Your task to perform on an android device: Search for "sony triple a" on walmart, select the first entry, and add it to the cart. Image 0: 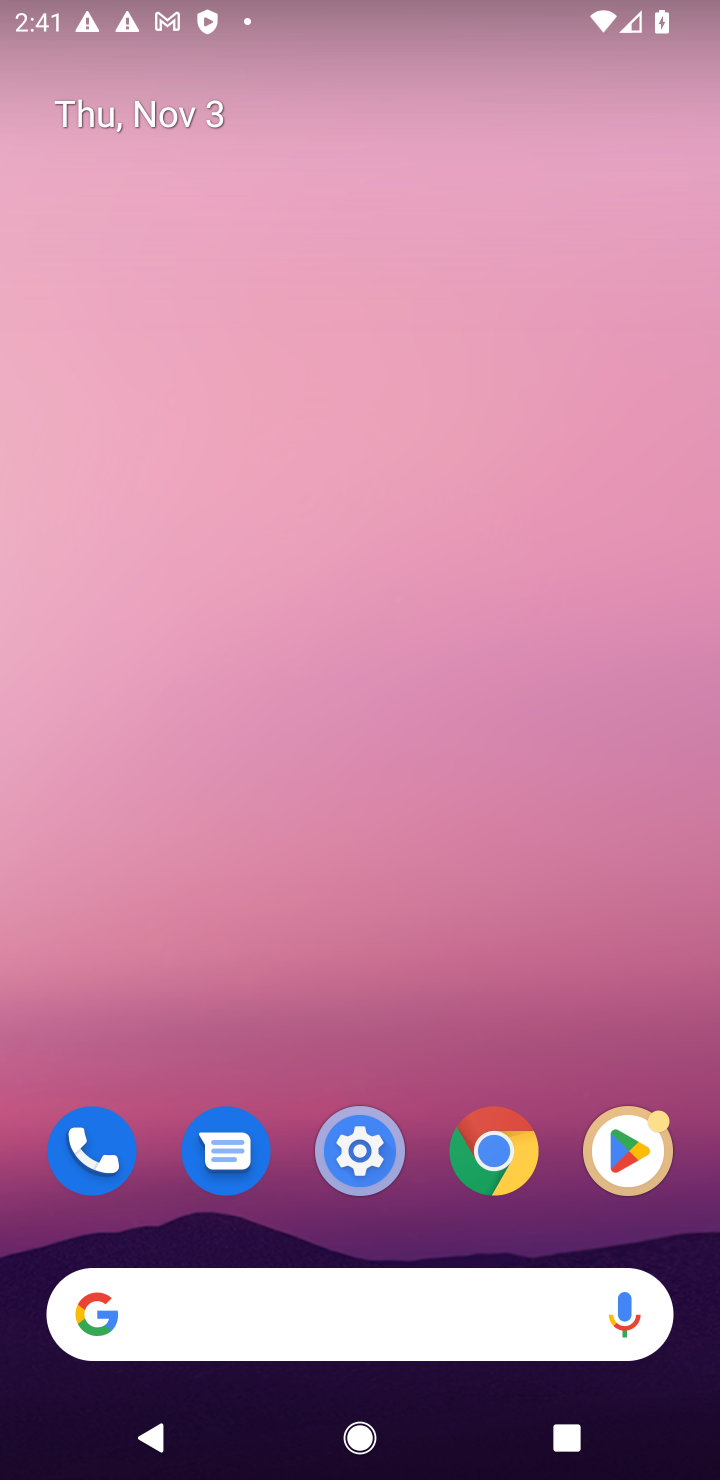
Step 0: click (318, 1335)
Your task to perform on an android device: Search for "sony triple a" on walmart, select the first entry, and add it to the cart. Image 1: 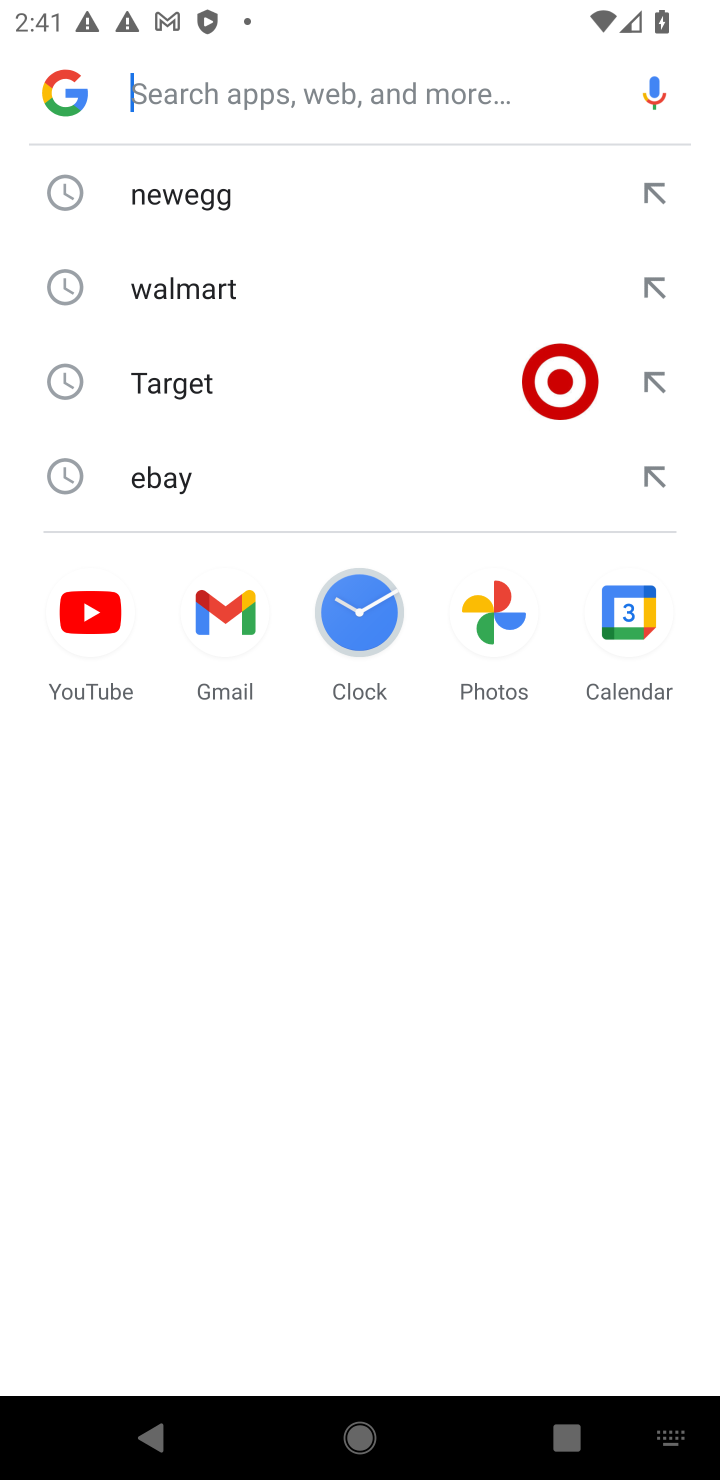
Step 1: type "walmart"
Your task to perform on an android device: Search for "sony triple a" on walmart, select the first entry, and add it to the cart. Image 2: 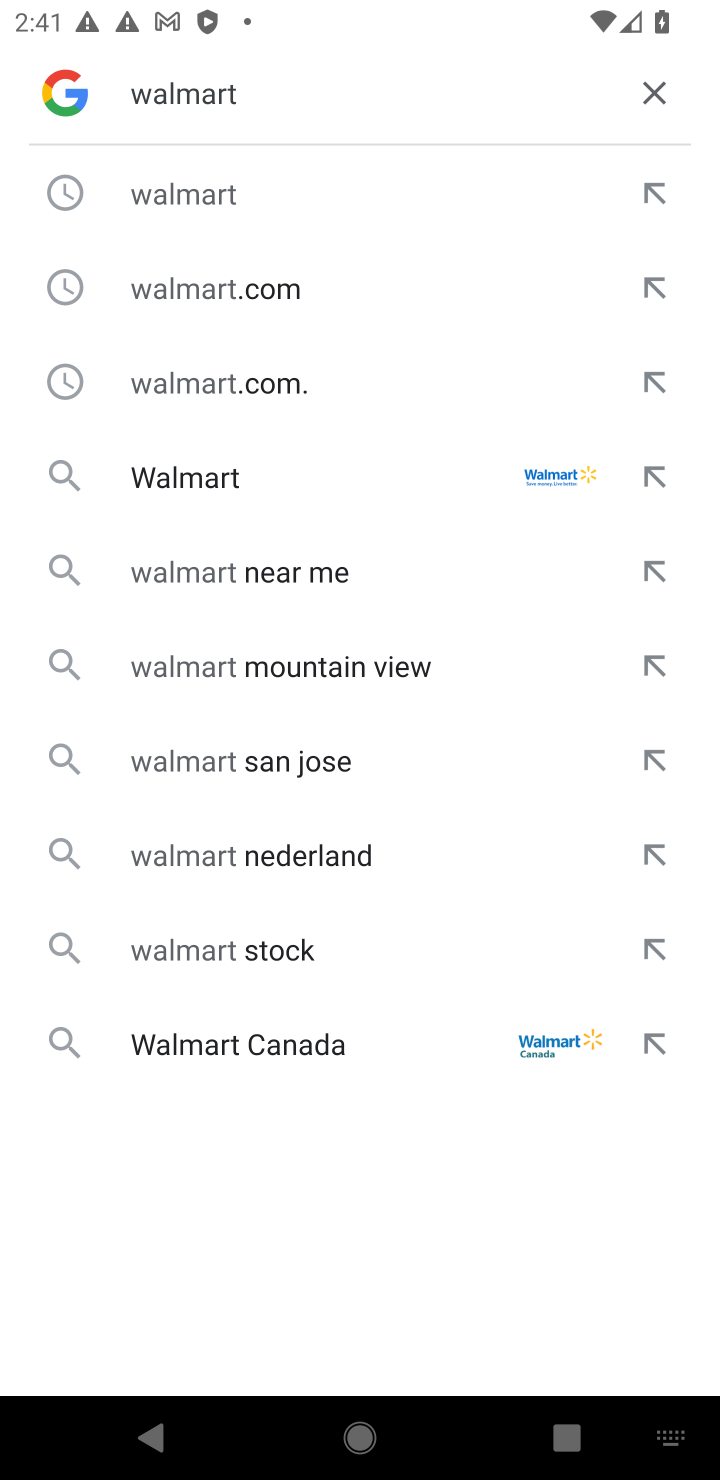
Step 2: click (160, 194)
Your task to perform on an android device: Search for "sony triple a" on walmart, select the first entry, and add it to the cart. Image 3: 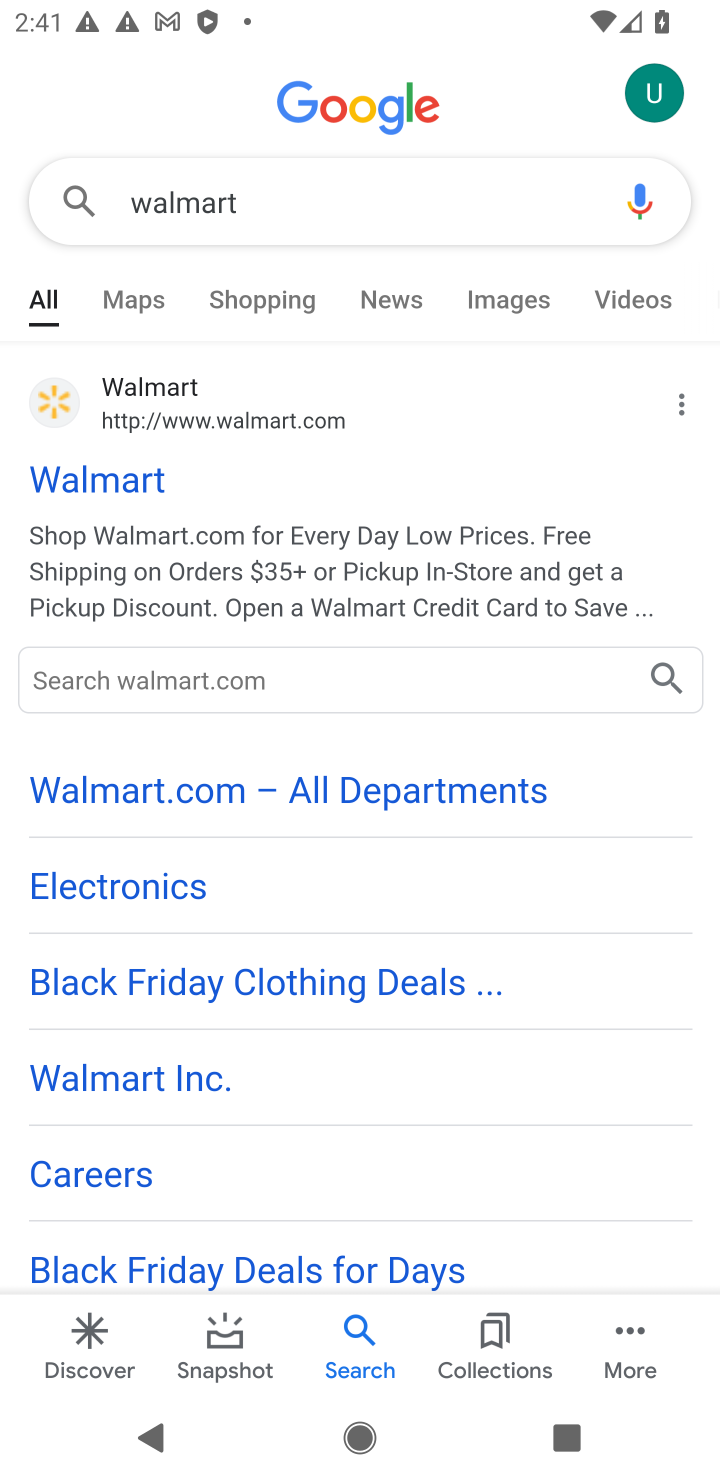
Step 3: click (86, 467)
Your task to perform on an android device: Search for "sony triple a" on walmart, select the first entry, and add it to the cart. Image 4: 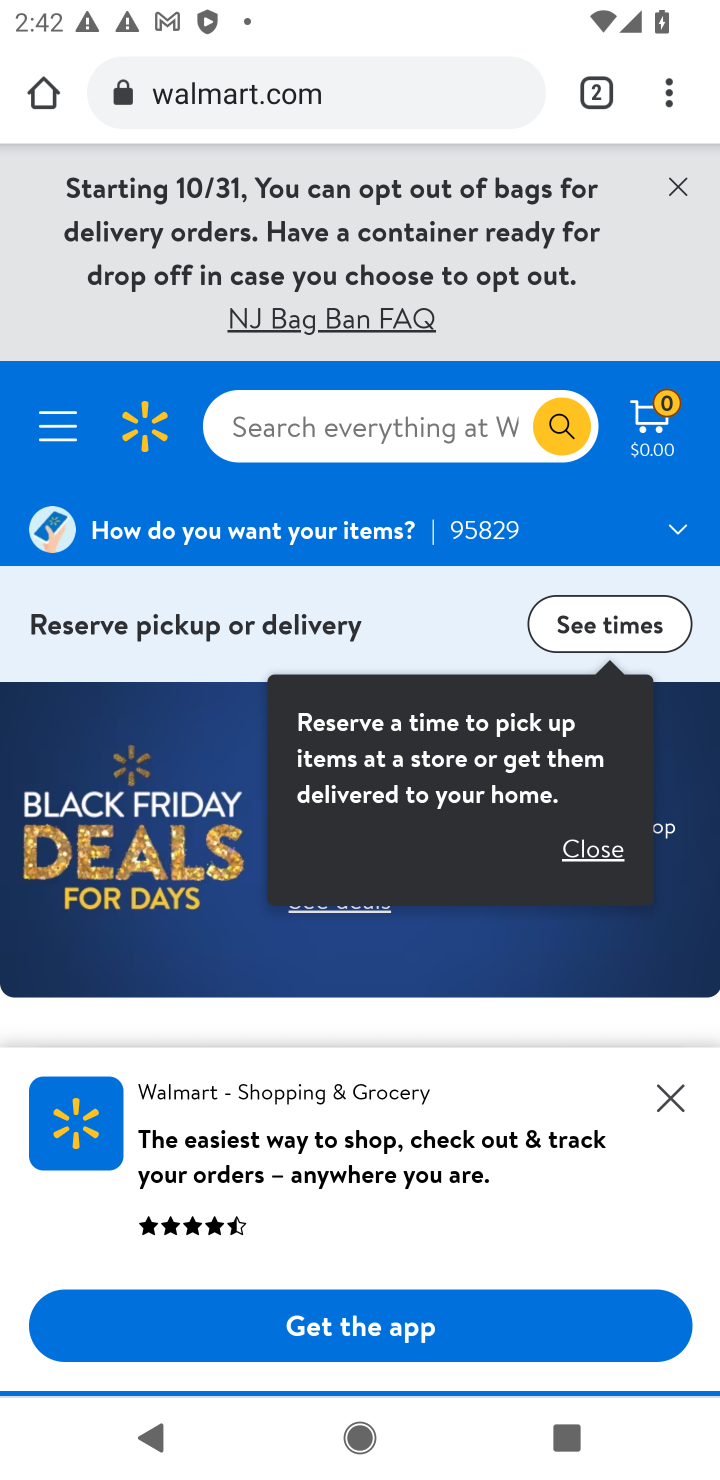
Step 4: click (340, 425)
Your task to perform on an android device: Search for "sony triple a" on walmart, select the first entry, and add it to the cart. Image 5: 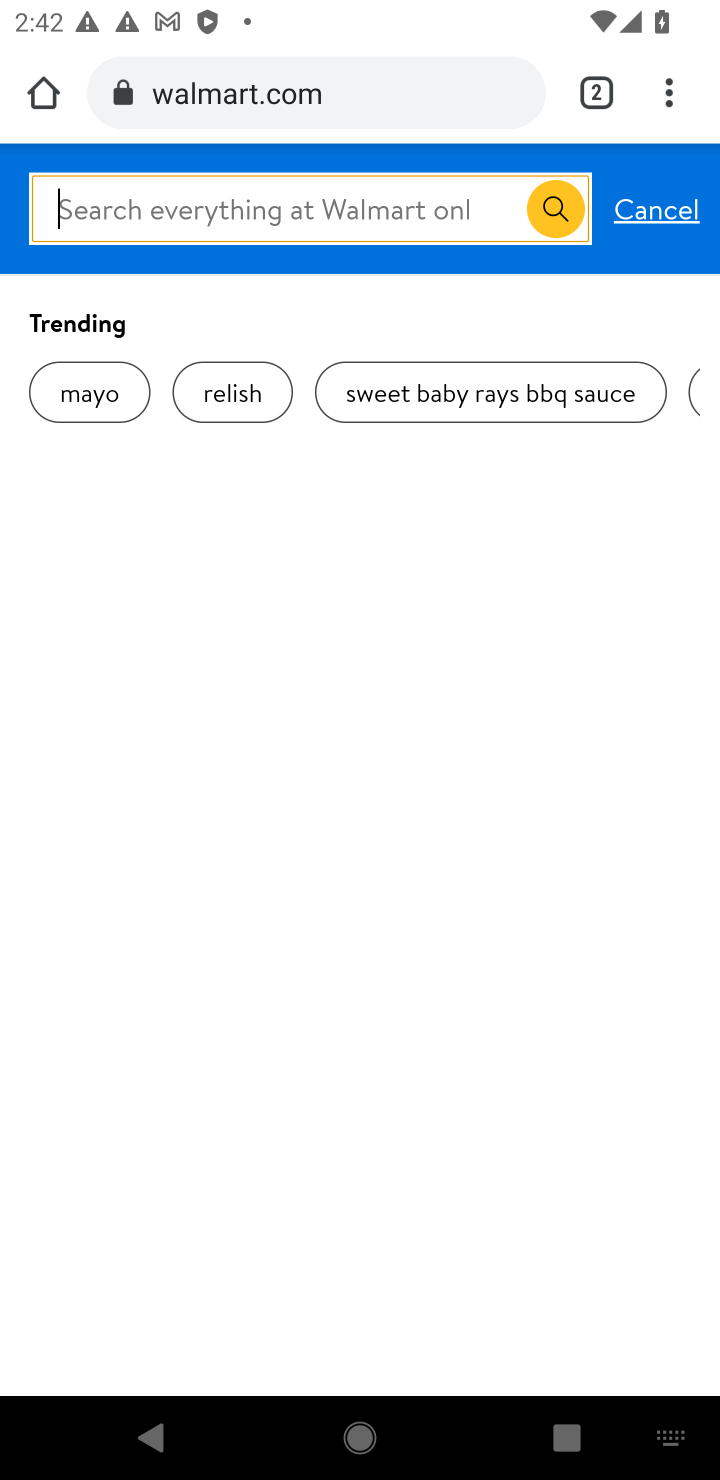
Step 5: type "sony triple a"
Your task to perform on an android device: Search for "sony triple a" on walmart, select the first entry, and add it to the cart. Image 6: 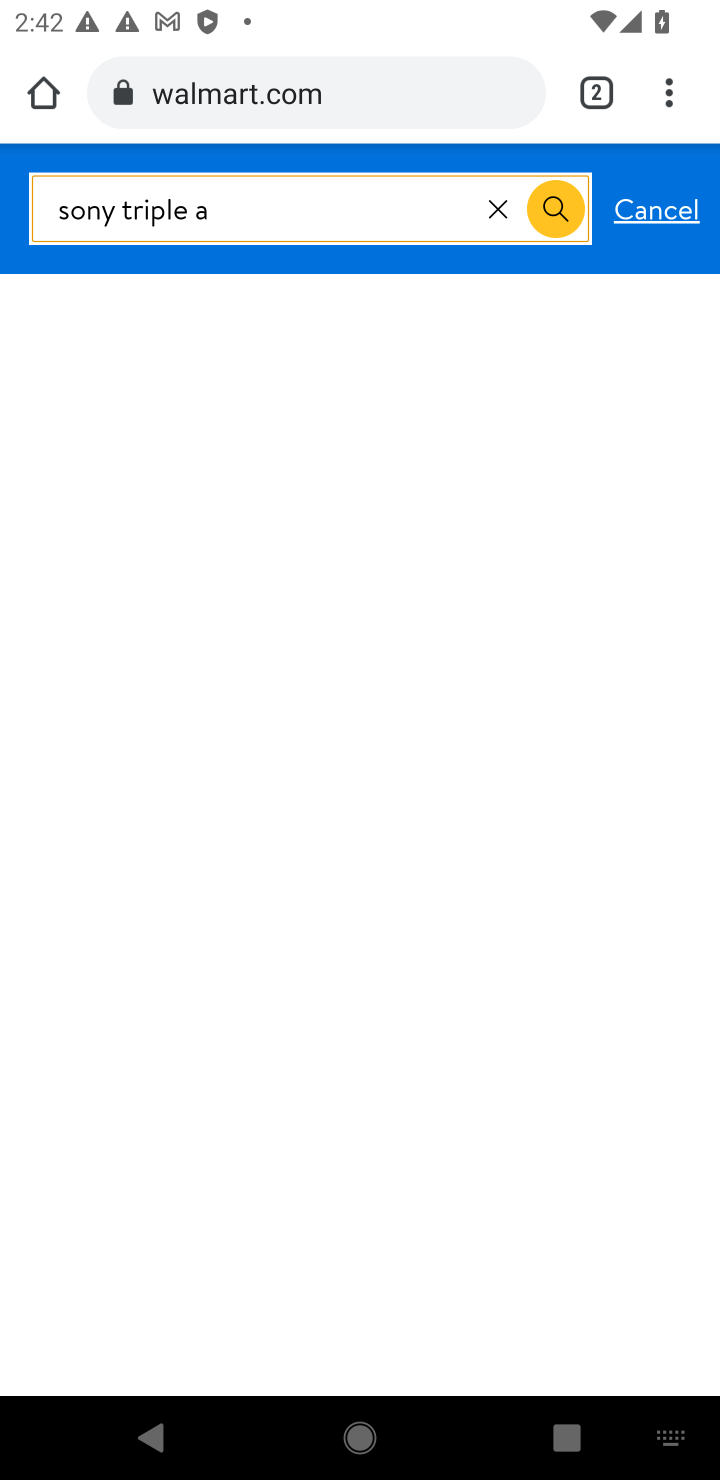
Step 6: click (549, 208)
Your task to perform on an android device: Search for "sony triple a" on walmart, select the first entry, and add it to the cart. Image 7: 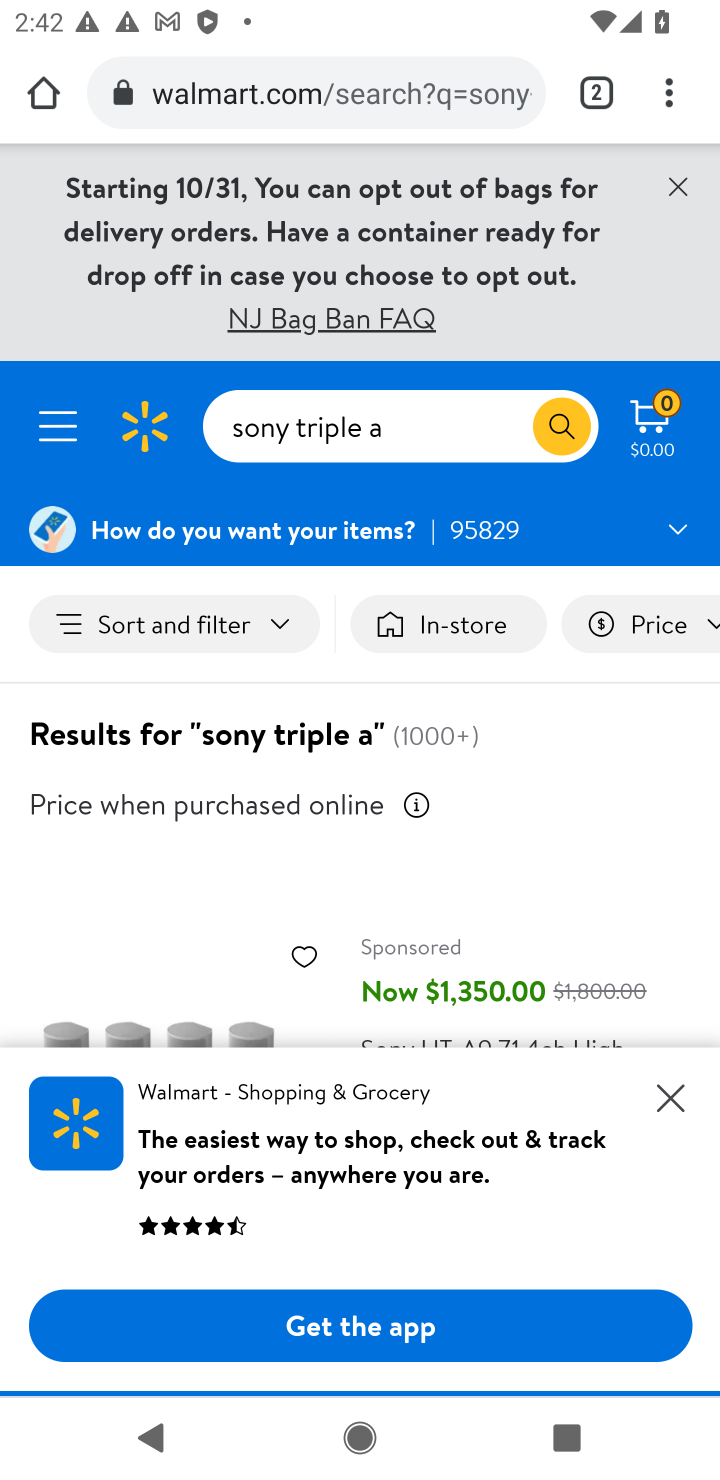
Step 7: click (672, 1089)
Your task to perform on an android device: Search for "sony triple a" on walmart, select the first entry, and add it to the cart. Image 8: 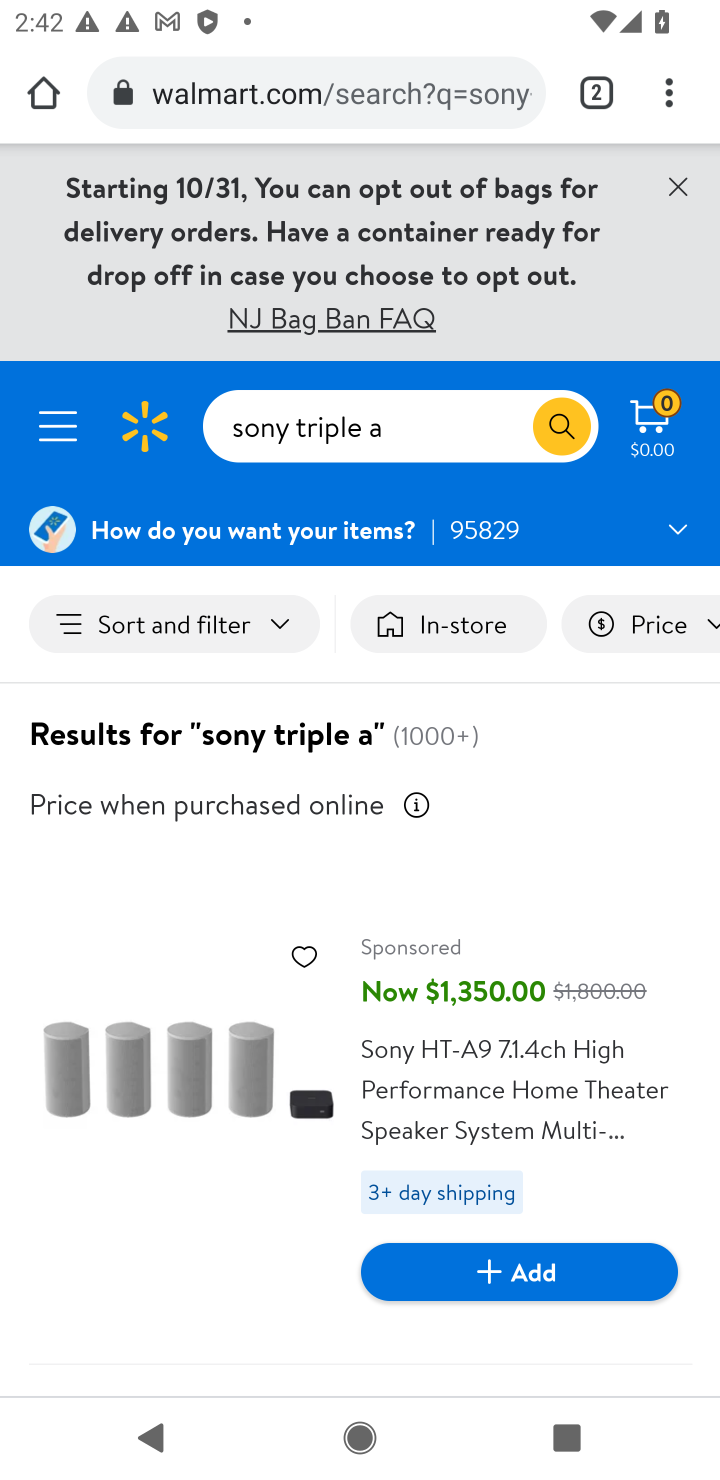
Step 8: click (412, 979)
Your task to perform on an android device: Search for "sony triple a" on walmart, select the first entry, and add it to the cart. Image 9: 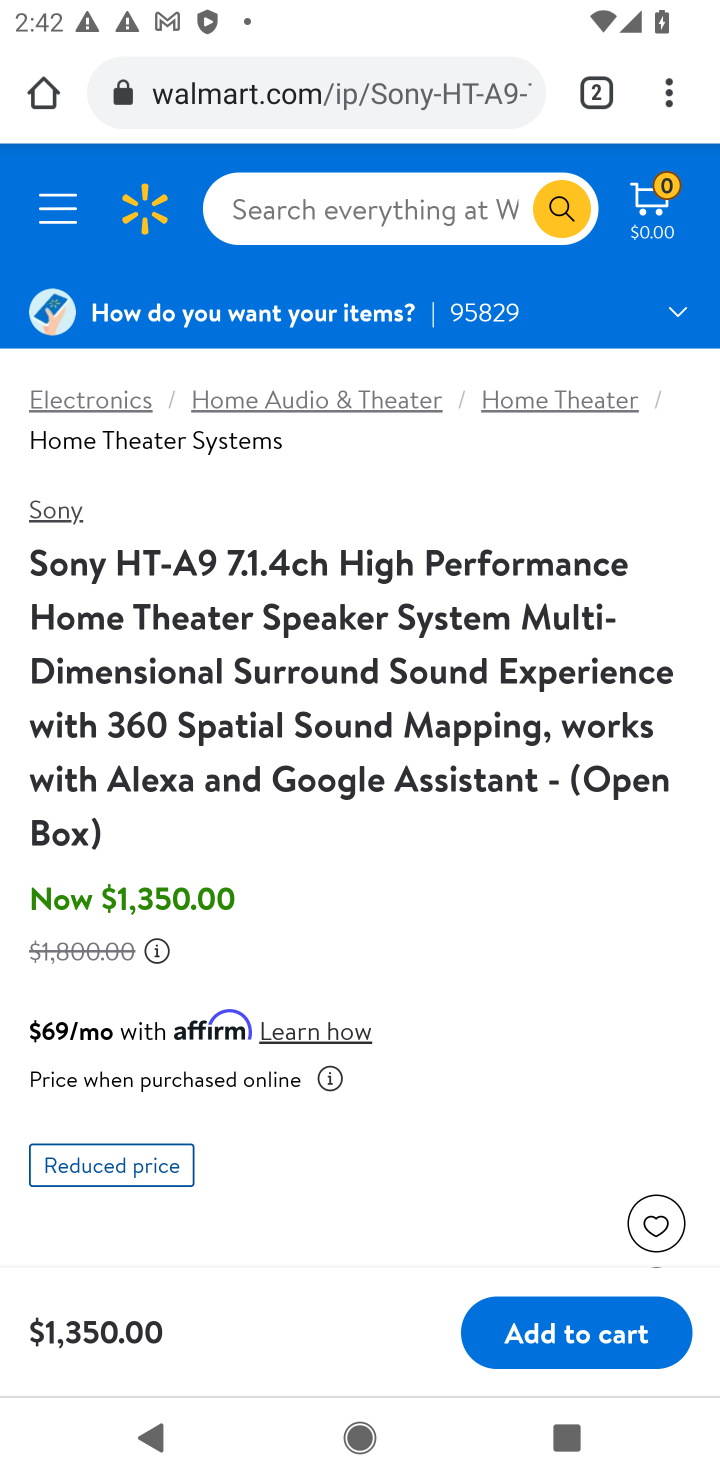
Step 9: click (510, 1340)
Your task to perform on an android device: Search for "sony triple a" on walmart, select the first entry, and add it to the cart. Image 10: 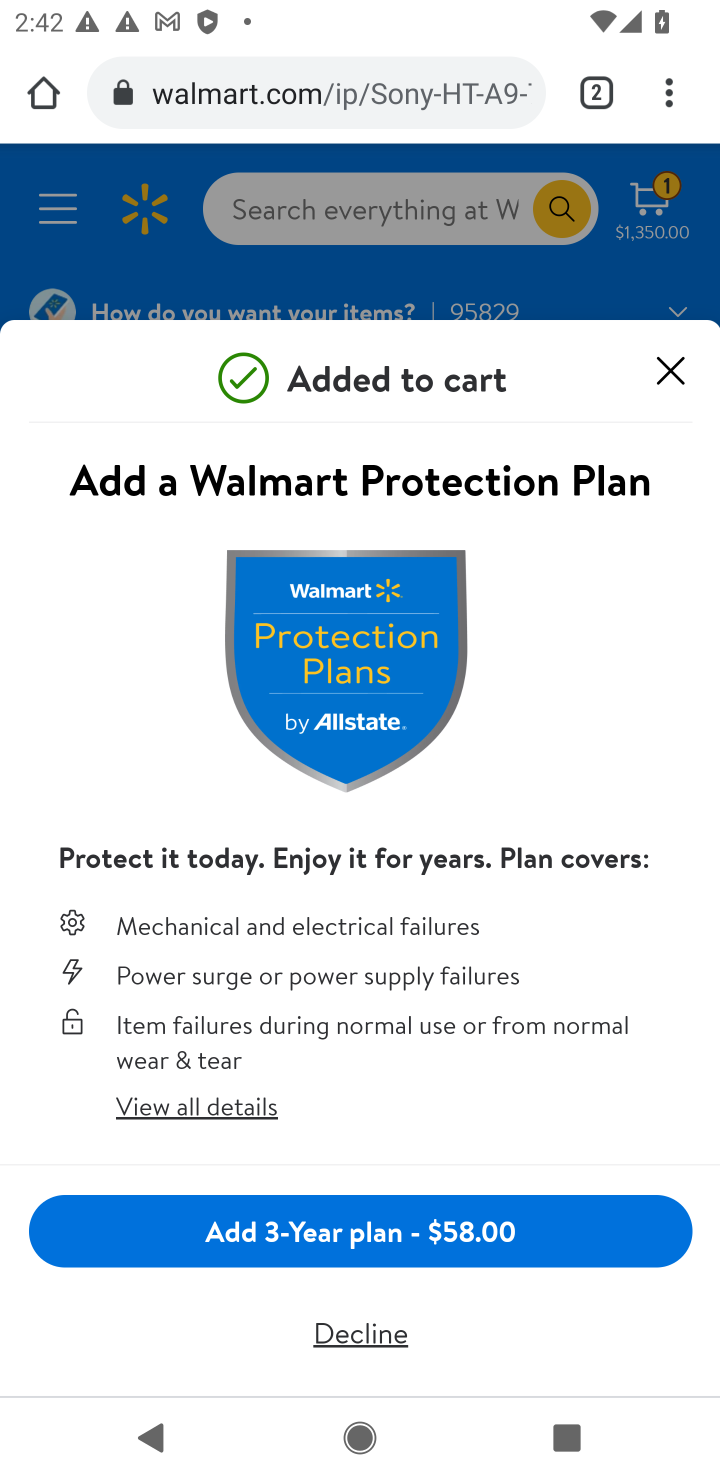
Step 10: click (340, 1337)
Your task to perform on an android device: Search for "sony triple a" on walmart, select the first entry, and add it to the cart. Image 11: 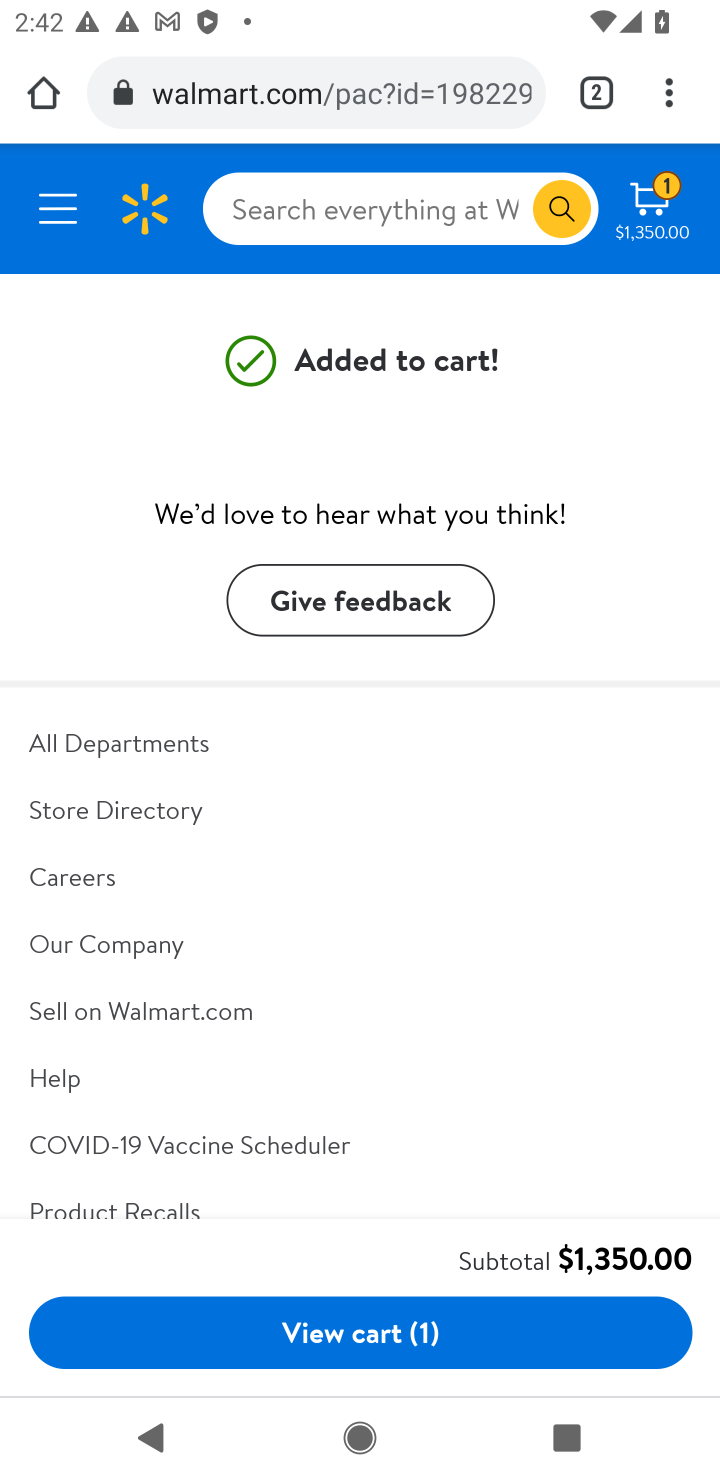
Step 11: task complete